Your task to perform on an android device: Clear the shopping cart on bestbuy. Add "logitech g pro" to the cart on bestbuy Image 0: 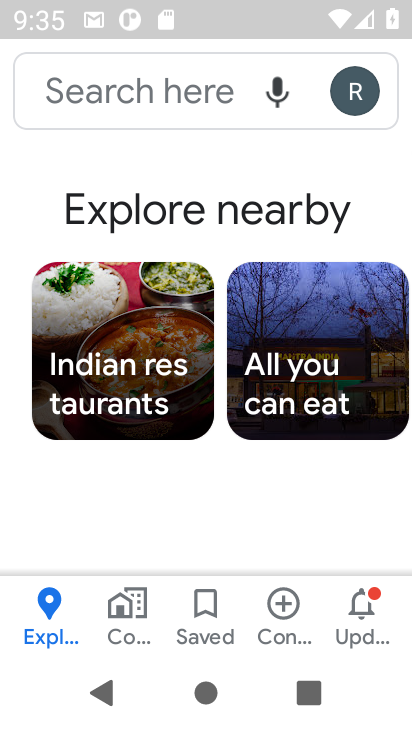
Step 0: task complete